Your task to perform on an android device: show emergency info Image 0: 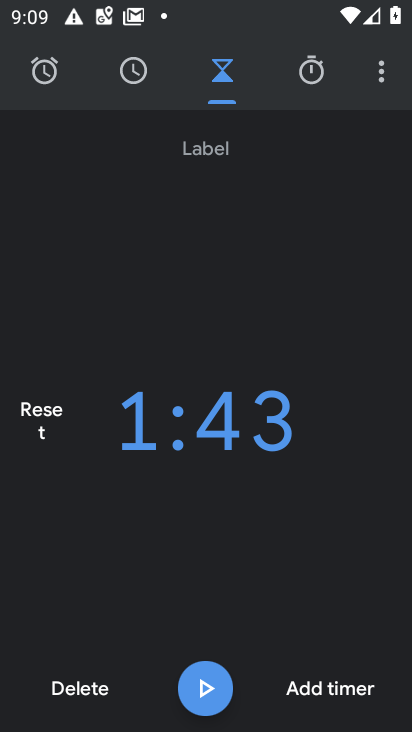
Step 0: press home button
Your task to perform on an android device: show emergency info Image 1: 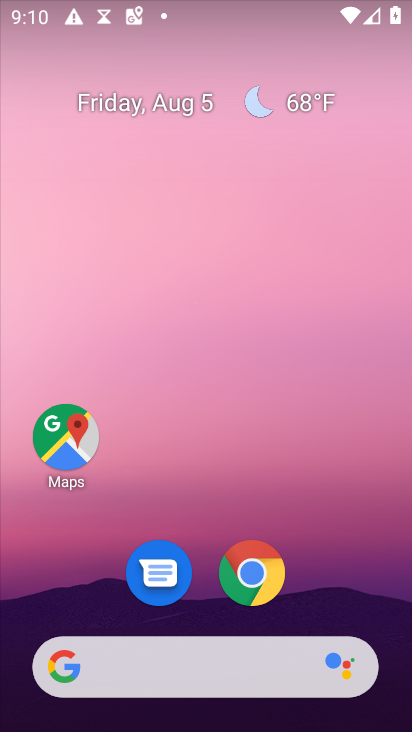
Step 1: drag from (193, 671) to (236, 99)
Your task to perform on an android device: show emergency info Image 2: 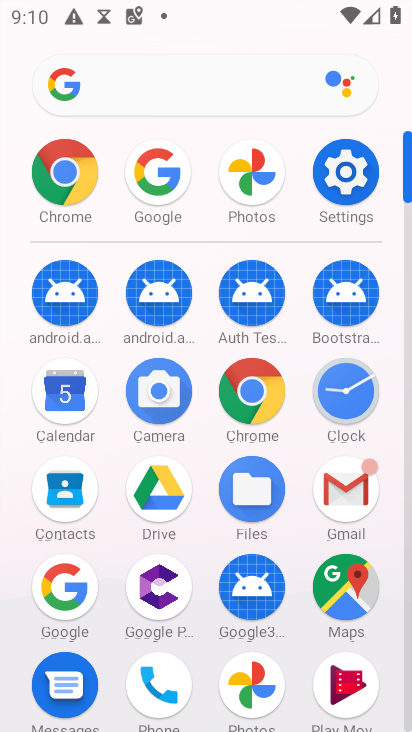
Step 2: click (346, 172)
Your task to perform on an android device: show emergency info Image 3: 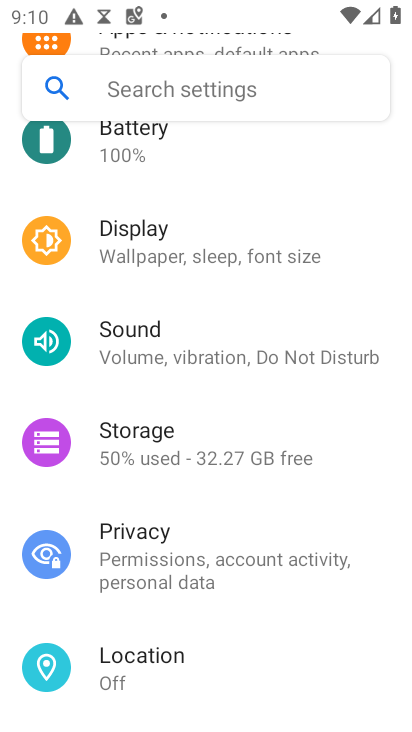
Step 3: drag from (221, 491) to (216, 358)
Your task to perform on an android device: show emergency info Image 4: 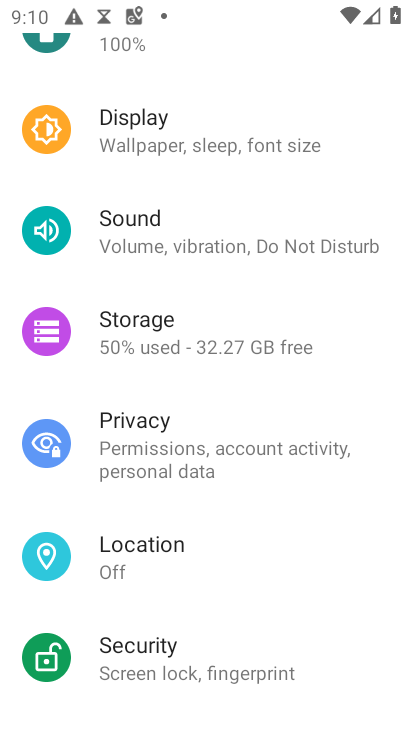
Step 4: drag from (179, 584) to (228, 468)
Your task to perform on an android device: show emergency info Image 5: 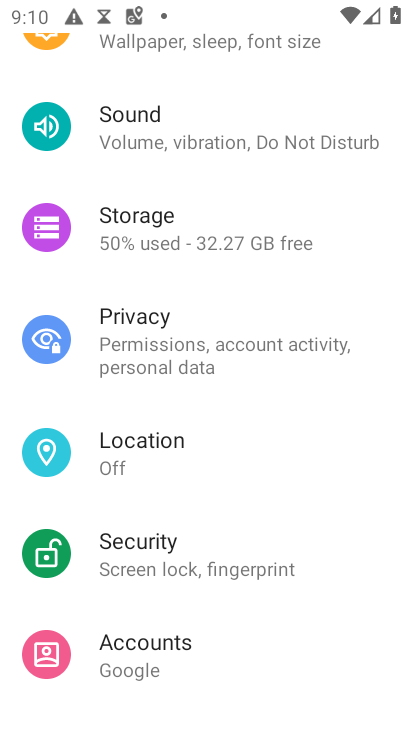
Step 5: drag from (206, 599) to (253, 435)
Your task to perform on an android device: show emergency info Image 6: 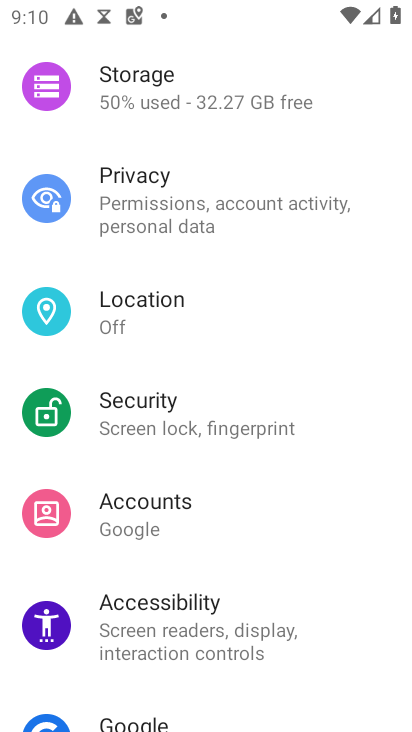
Step 6: drag from (193, 547) to (245, 438)
Your task to perform on an android device: show emergency info Image 7: 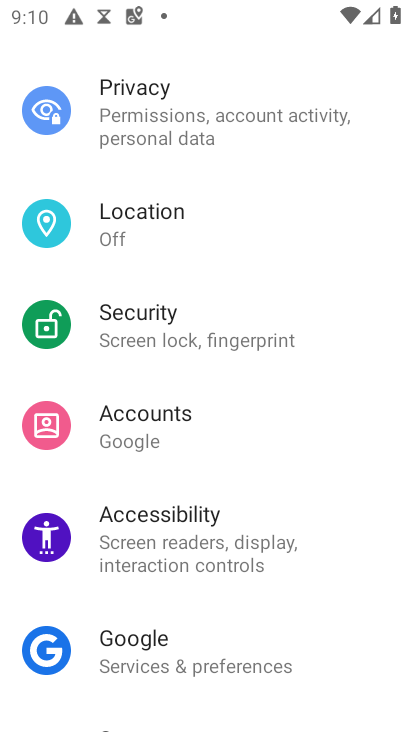
Step 7: drag from (218, 596) to (273, 490)
Your task to perform on an android device: show emergency info Image 8: 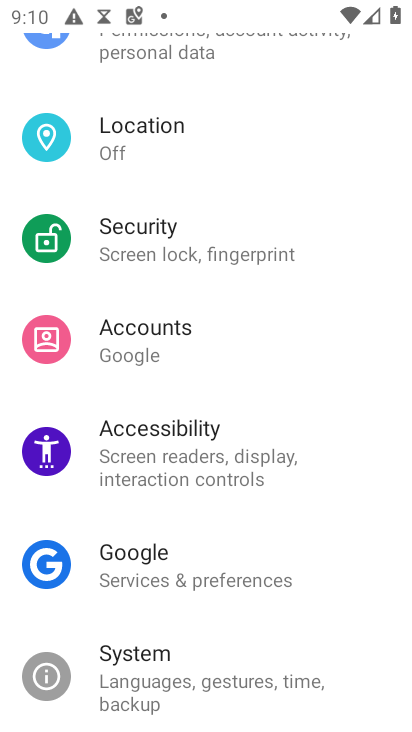
Step 8: drag from (210, 628) to (292, 374)
Your task to perform on an android device: show emergency info Image 9: 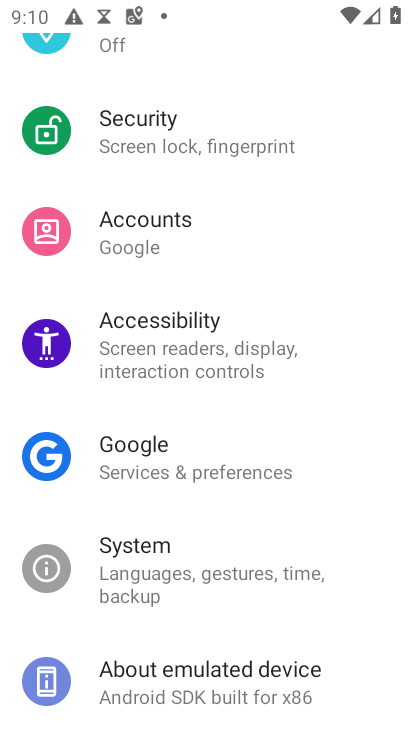
Step 9: click (228, 674)
Your task to perform on an android device: show emergency info Image 10: 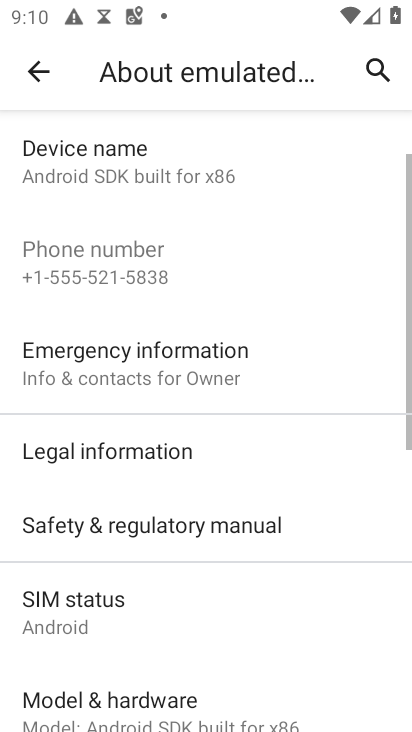
Step 10: click (188, 373)
Your task to perform on an android device: show emergency info Image 11: 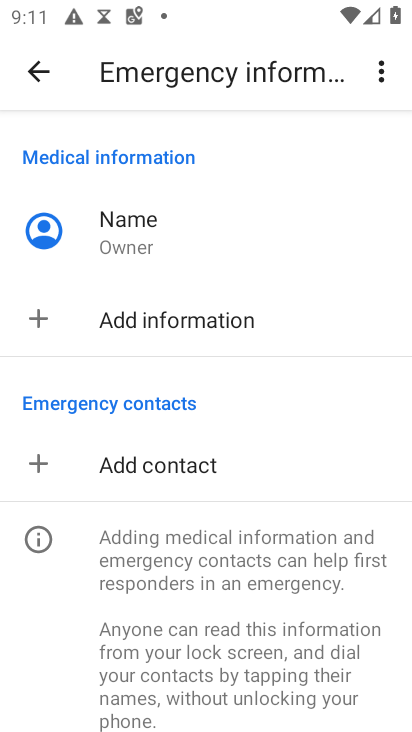
Step 11: task complete